Your task to perform on an android device: Open Wikipedia Image 0: 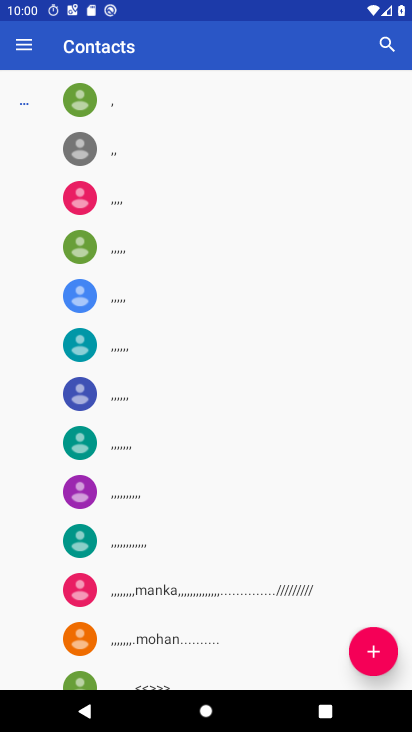
Step 0: press home button
Your task to perform on an android device: Open Wikipedia Image 1: 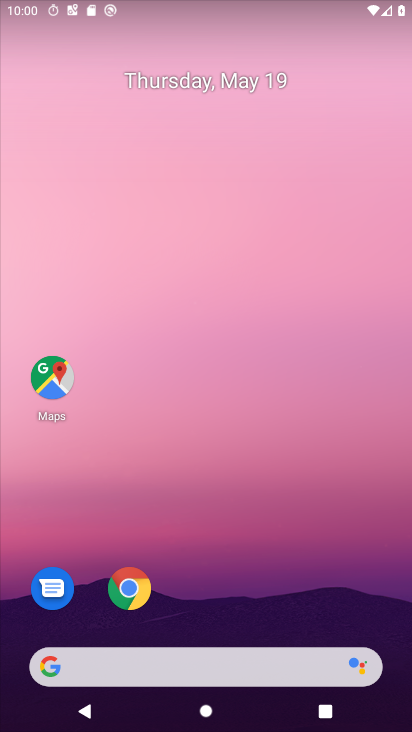
Step 1: click (127, 587)
Your task to perform on an android device: Open Wikipedia Image 2: 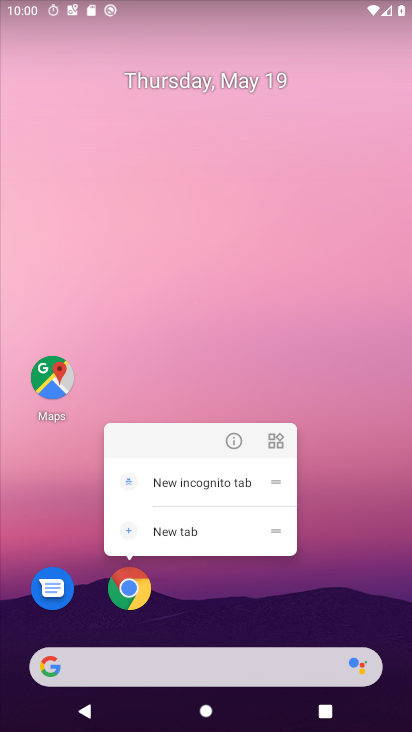
Step 2: click (124, 589)
Your task to perform on an android device: Open Wikipedia Image 3: 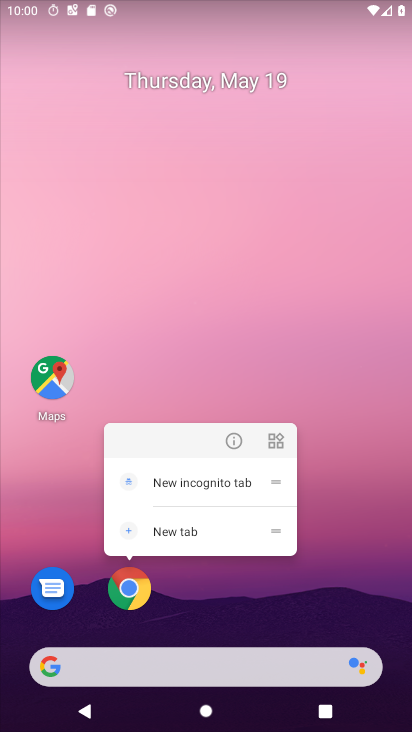
Step 3: click (130, 594)
Your task to perform on an android device: Open Wikipedia Image 4: 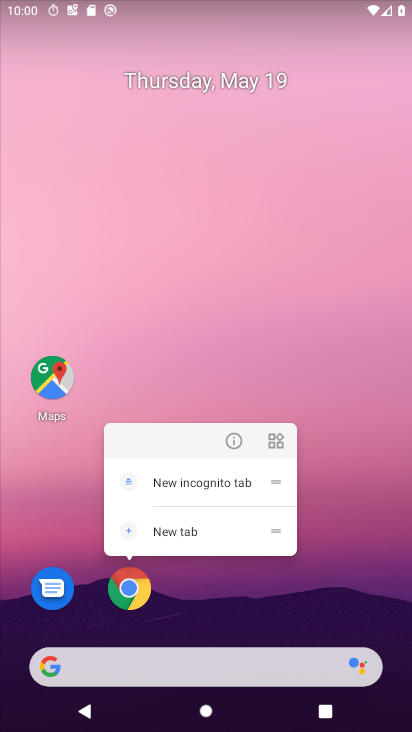
Step 4: click (130, 594)
Your task to perform on an android device: Open Wikipedia Image 5: 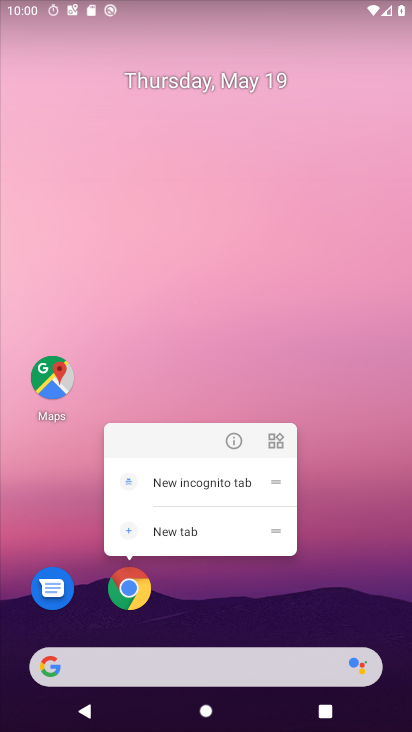
Step 5: click (130, 594)
Your task to perform on an android device: Open Wikipedia Image 6: 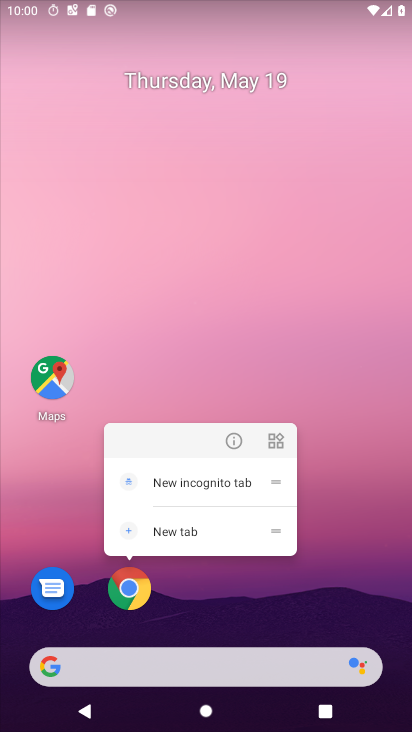
Step 6: click (132, 590)
Your task to perform on an android device: Open Wikipedia Image 7: 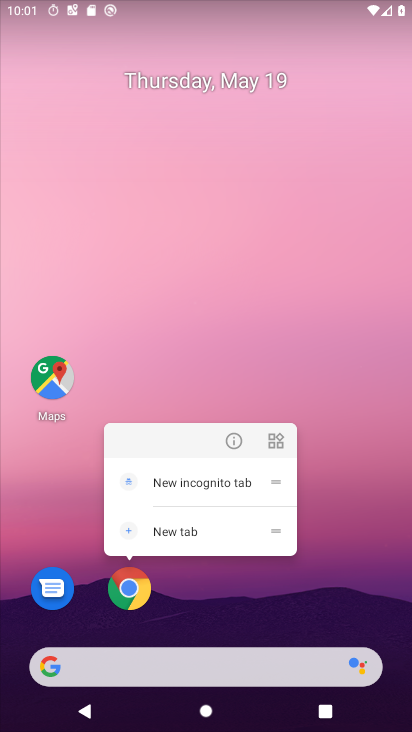
Step 7: click (121, 589)
Your task to perform on an android device: Open Wikipedia Image 8: 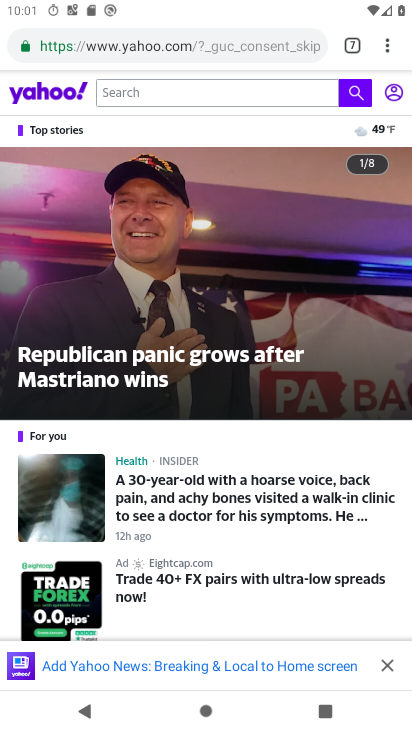
Step 8: drag from (388, 47) to (320, 91)
Your task to perform on an android device: Open Wikipedia Image 9: 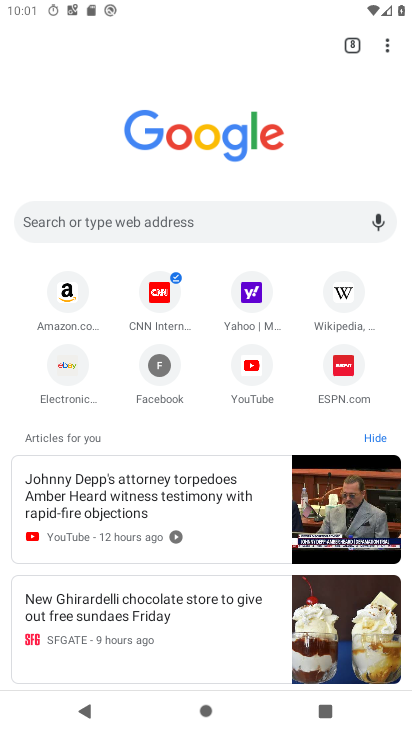
Step 9: click (336, 295)
Your task to perform on an android device: Open Wikipedia Image 10: 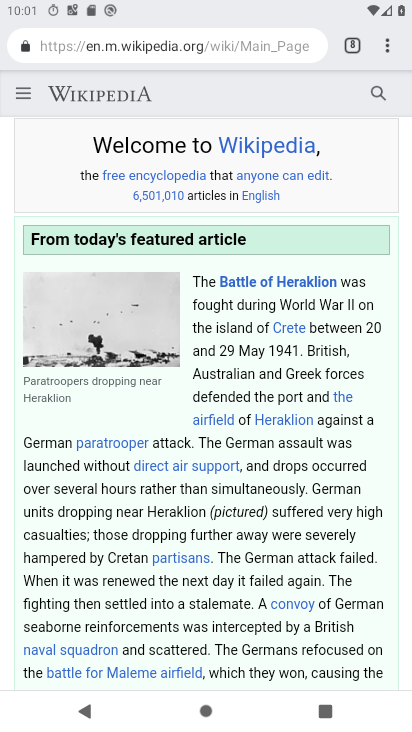
Step 10: task complete